Your task to perform on an android device: Go to eBay Image 0: 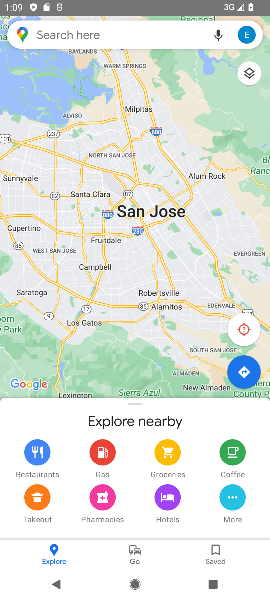
Step 0: press home button
Your task to perform on an android device: Go to eBay Image 1: 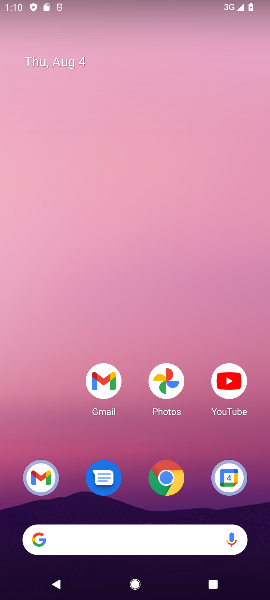
Step 1: click (156, 484)
Your task to perform on an android device: Go to eBay Image 2: 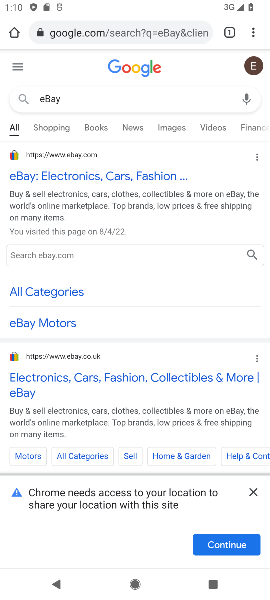
Step 2: click (21, 171)
Your task to perform on an android device: Go to eBay Image 3: 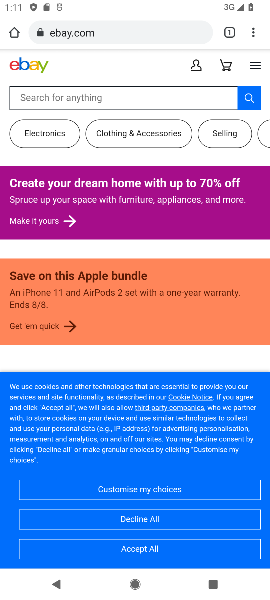
Step 3: task complete